Your task to perform on an android device: Open Chrome and go to settings Image 0: 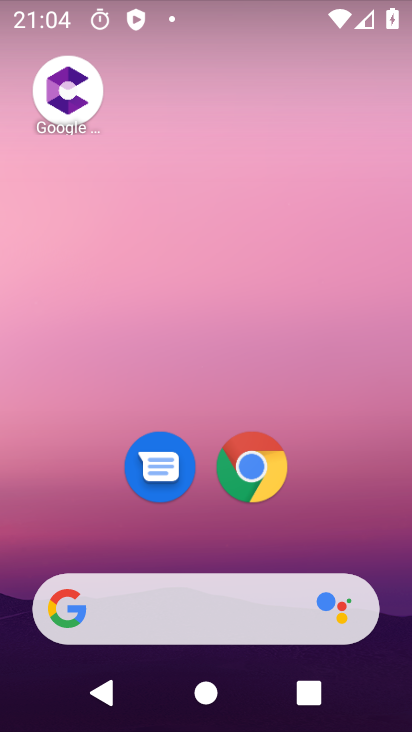
Step 0: click (237, 477)
Your task to perform on an android device: Open Chrome and go to settings Image 1: 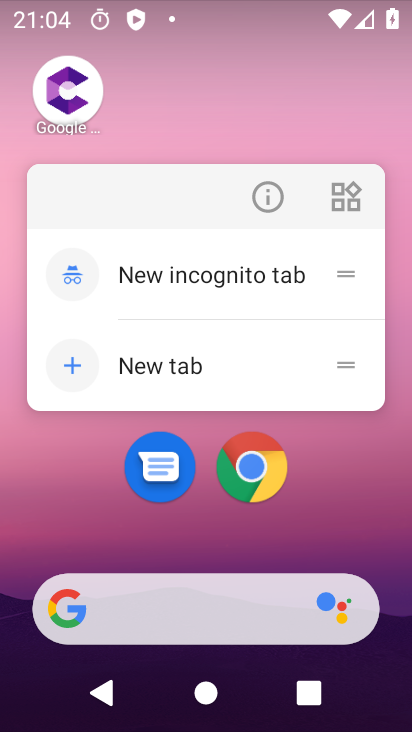
Step 1: click (254, 478)
Your task to perform on an android device: Open Chrome and go to settings Image 2: 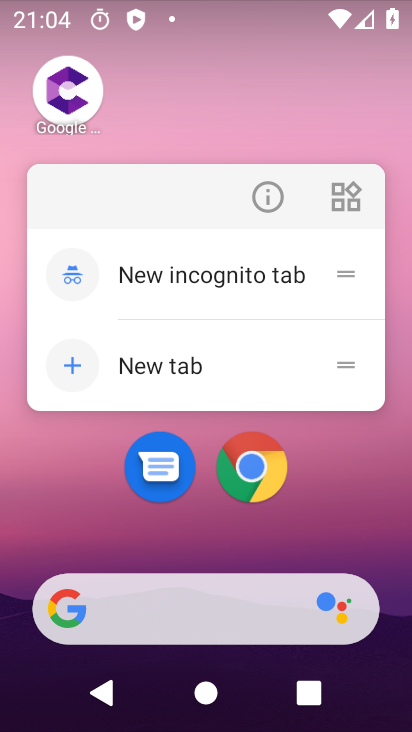
Step 2: click (269, 462)
Your task to perform on an android device: Open Chrome and go to settings Image 3: 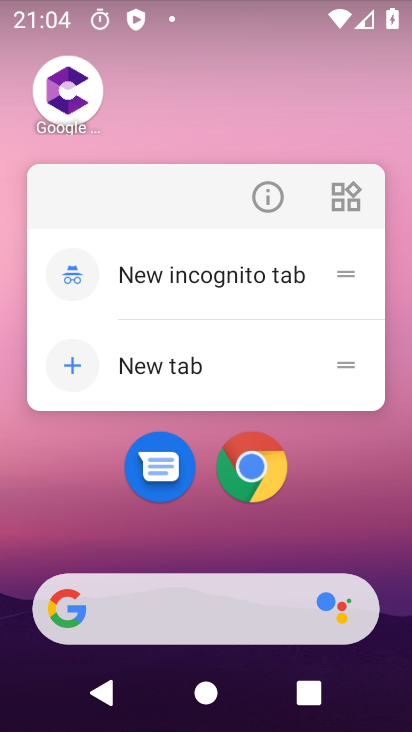
Step 3: click (272, 453)
Your task to perform on an android device: Open Chrome and go to settings Image 4: 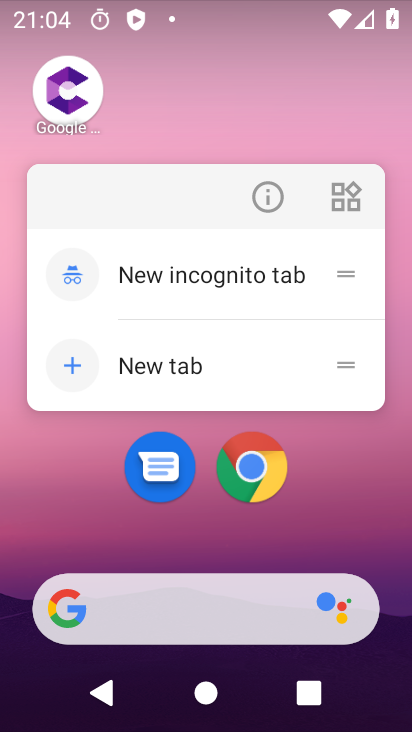
Step 4: click (263, 448)
Your task to perform on an android device: Open Chrome and go to settings Image 5: 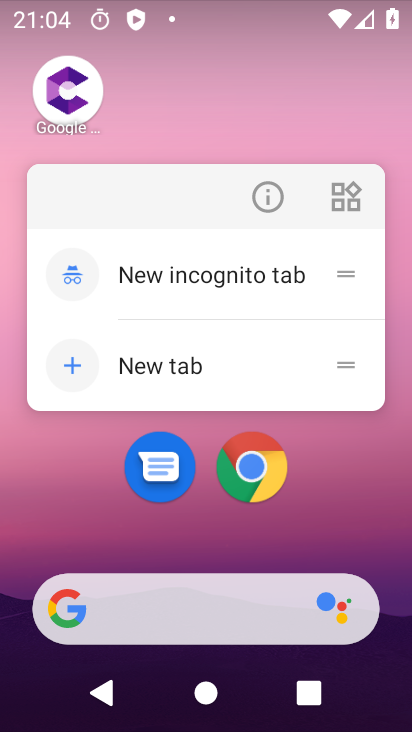
Step 5: click (263, 459)
Your task to perform on an android device: Open Chrome and go to settings Image 6: 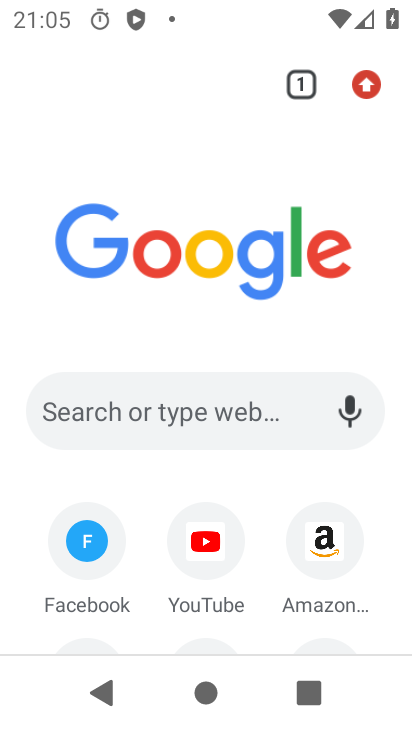
Step 6: click (369, 77)
Your task to perform on an android device: Open Chrome and go to settings Image 7: 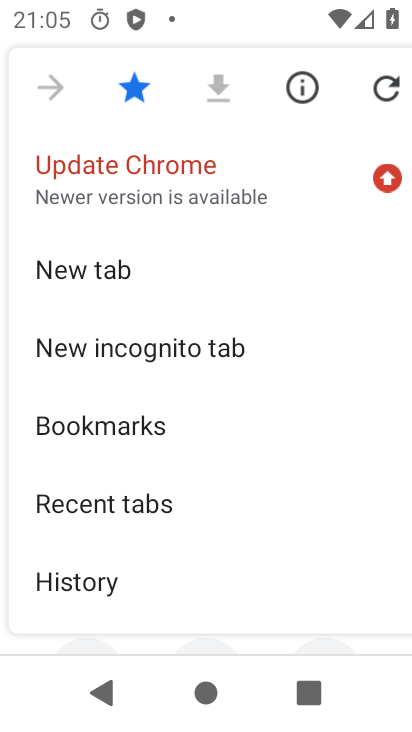
Step 7: drag from (115, 577) to (119, 129)
Your task to perform on an android device: Open Chrome and go to settings Image 8: 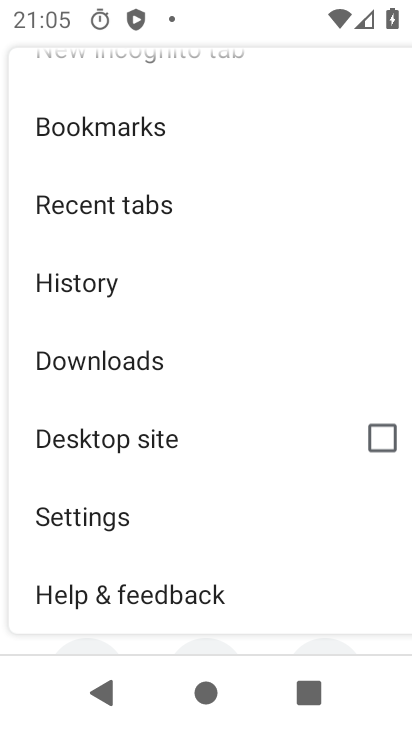
Step 8: click (104, 524)
Your task to perform on an android device: Open Chrome and go to settings Image 9: 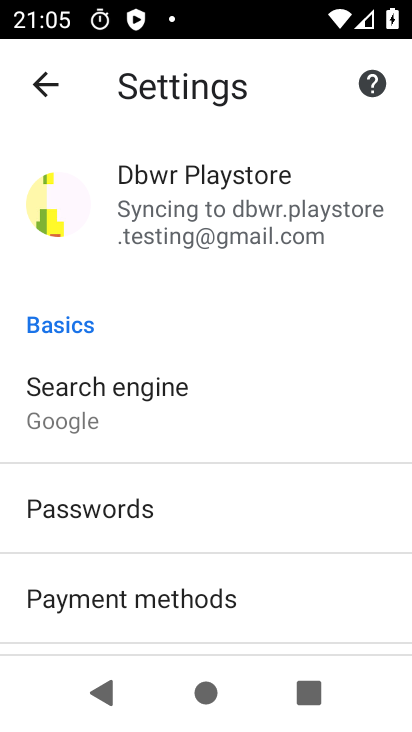
Step 9: task complete